Your task to perform on an android device: What is the recent news? Image 0: 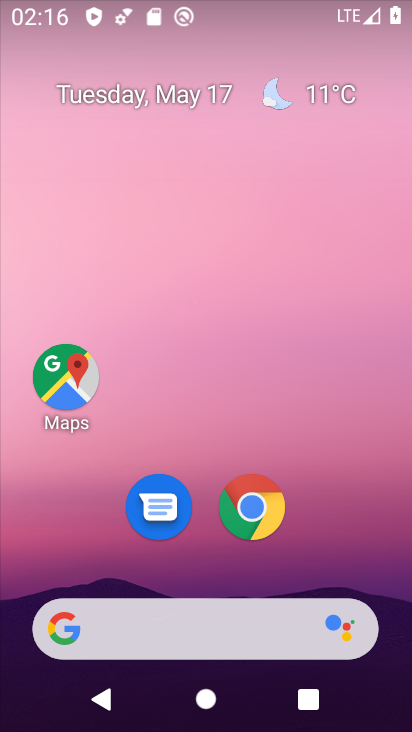
Step 0: click (201, 612)
Your task to perform on an android device: What is the recent news? Image 1: 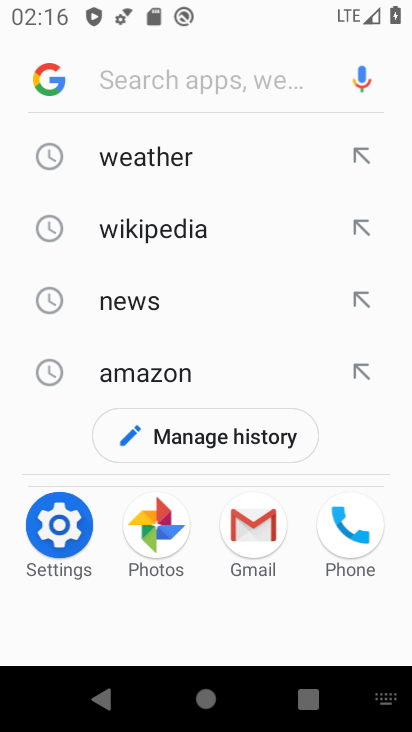
Step 1: click (51, 85)
Your task to perform on an android device: What is the recent news? Image 2: 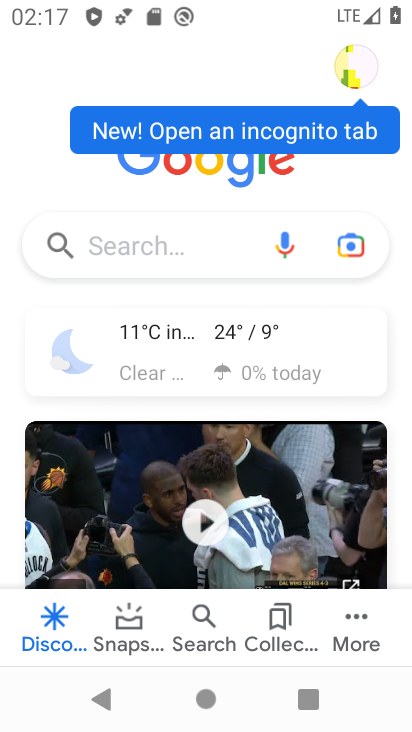
Step 2: task complete